Your task to perform on an android device: Open sound settings Image 0: 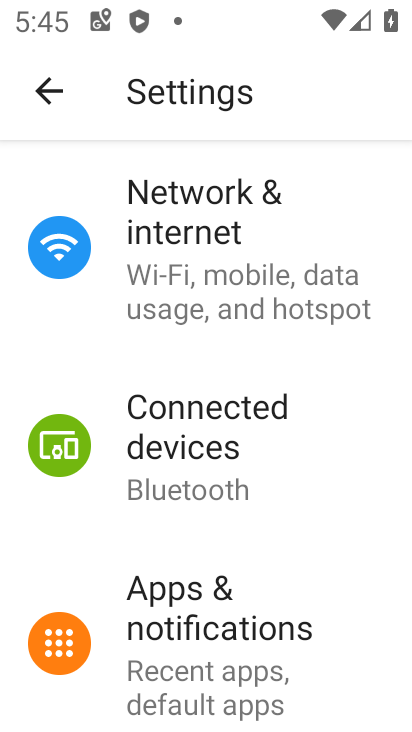
Step 0: press home button
Your task to perform on an android device: Open sound settings Image 1: 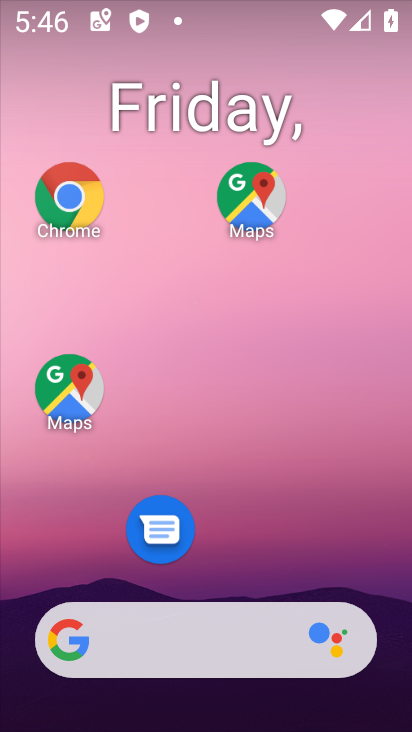
Step 1: drag from (281, 563) to (256, 185)
Your task to perform on an android device: Open sound settings Image 2: 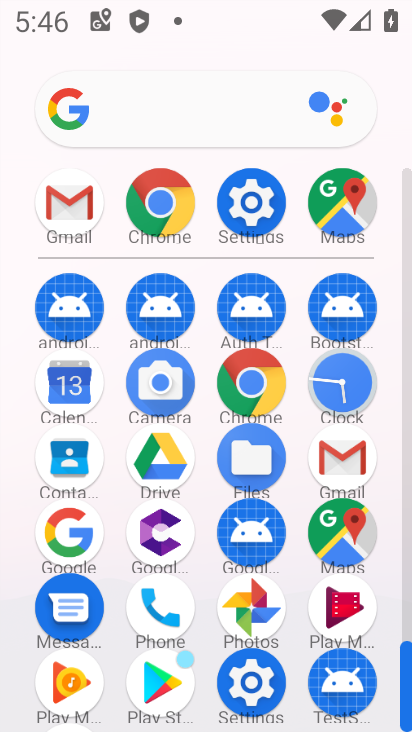
Step 2: click (246, 176)
Your task to perform on an android device: Open sound settings Image 3: 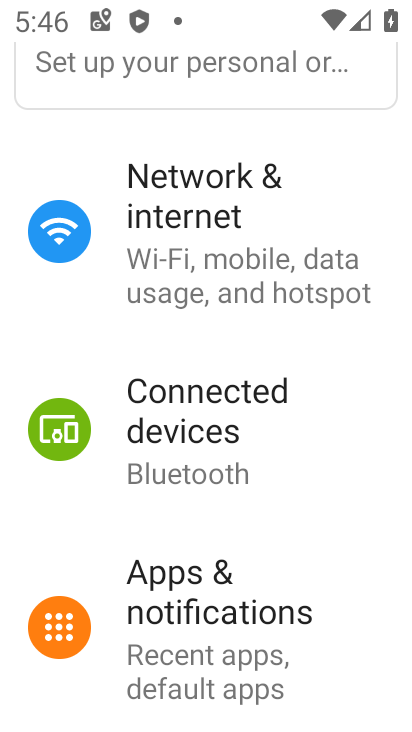
Step 3: drag from (251, 283) to (266, 232)
Your task to perform on an android device: Open sound settings Image 4: 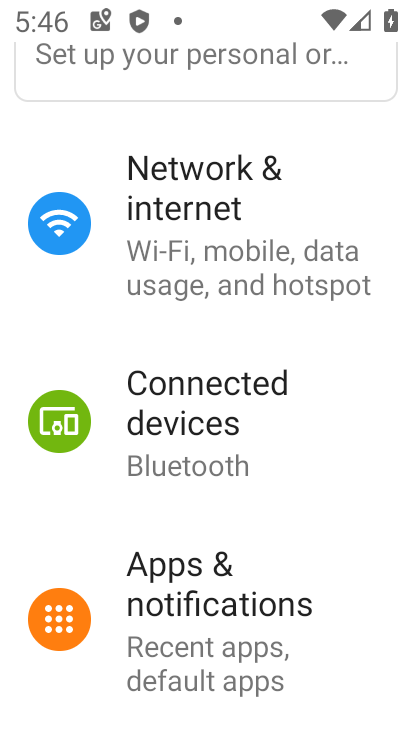
Step 4: drag from (216, 650) to (253, 287)
Your task to perform on an android device: Open sound settings Image 5: 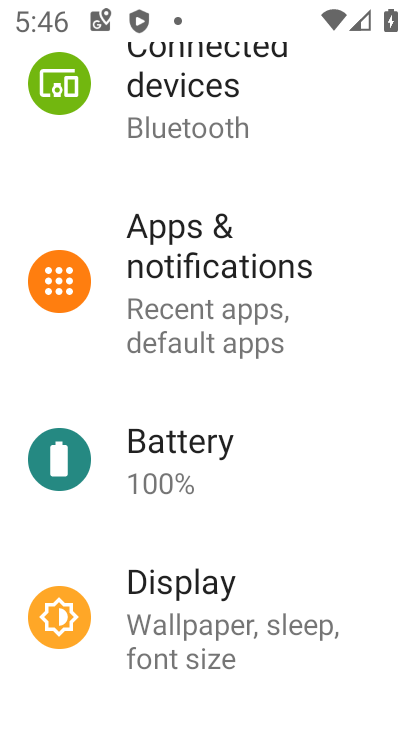
Step 5: drag from (206, 600) to (227, 336)
Your task to perform on an android device: Open sound settings Image 6: 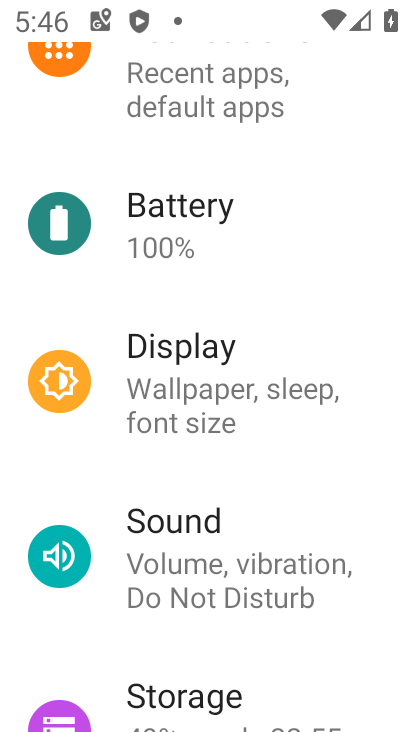
Step 6: click (198, 563)
Your task to perform on an android device: Open sound settings Image 7: 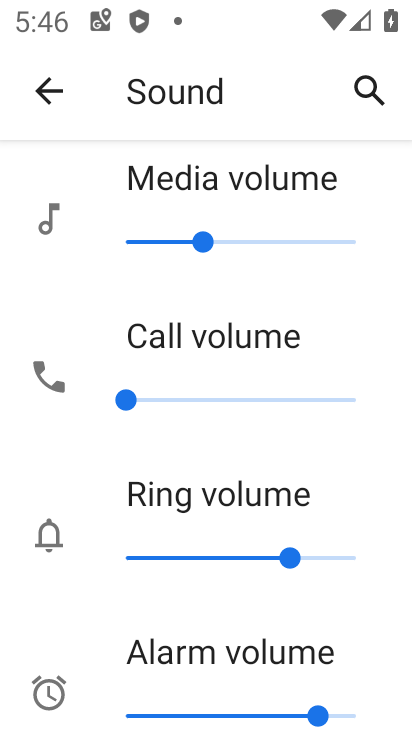
Step 7: task complete